Your task to perform on an android device: clear history in the chrome app Image 0: 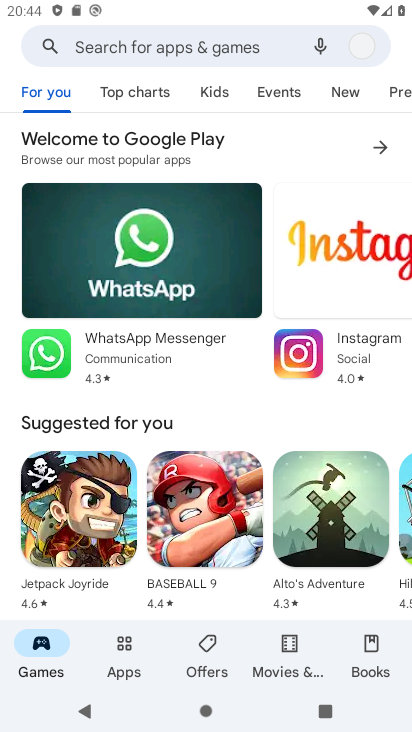
Step 0: press home button
Your task to perform on an android device: clear history in the chrome app Image 1: 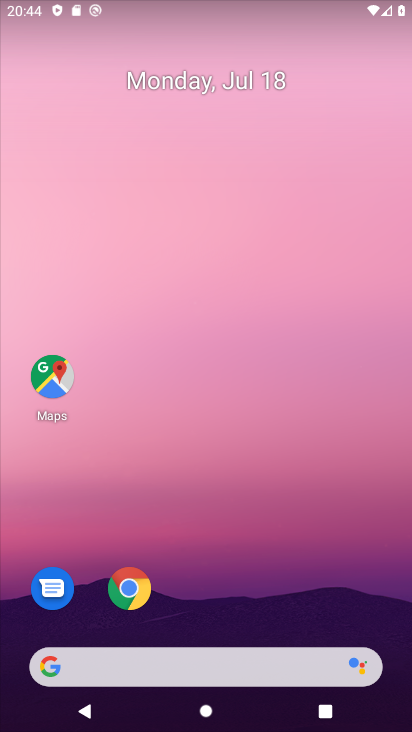
Step 1: click (122, 594)
Your task to perform on an android device: clear history in the chrome app Image 2: 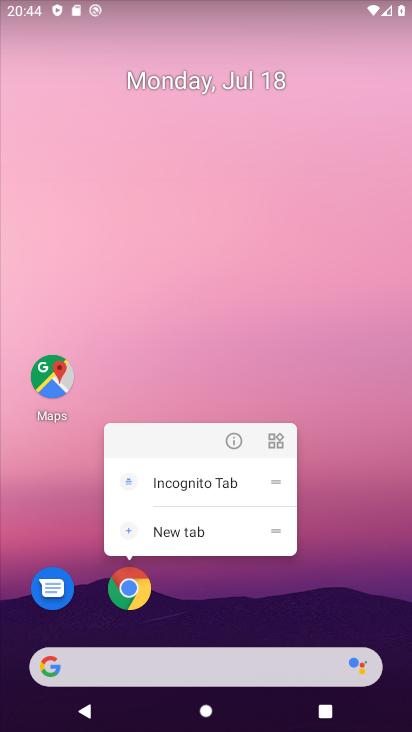
Step 2: click (138, 582)
Your task to perform on an android device: clear history in the chrome app Image 3: 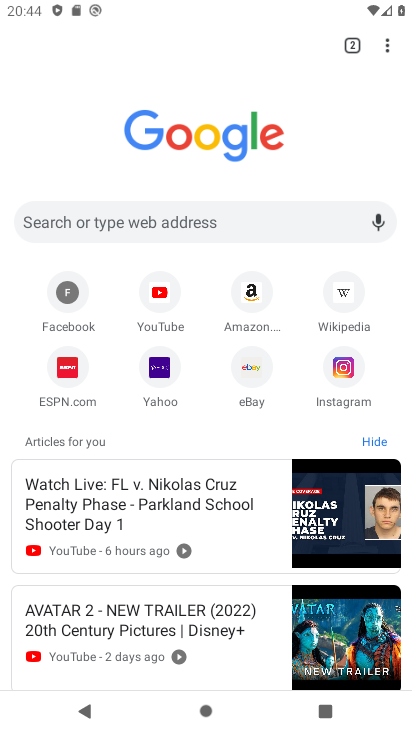
Step 3: drag from (386, 46) to (265, 259)
Your task to perform on an android device: clear history in the chrome app Image 4: 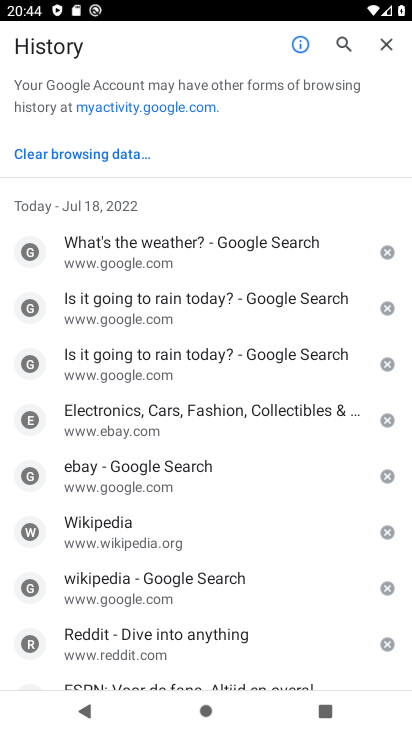
Step 4: click (95, 151)
Your task to perform on an android device: clear history in the chrome app Image 5: 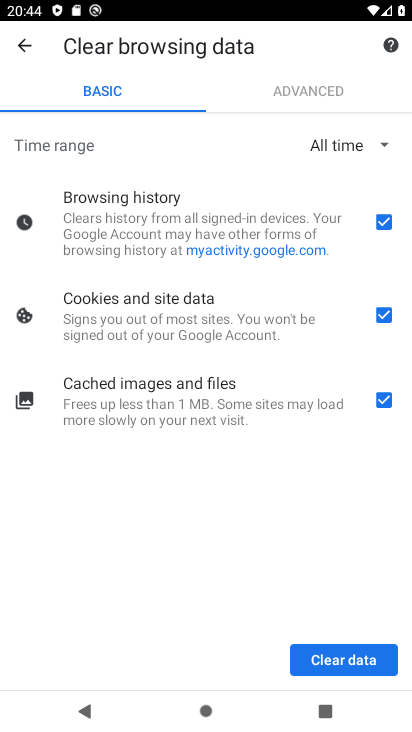
Step 5: click (337, 659)
Your task to perform on an android device: clear history in the chrome app Image 6: 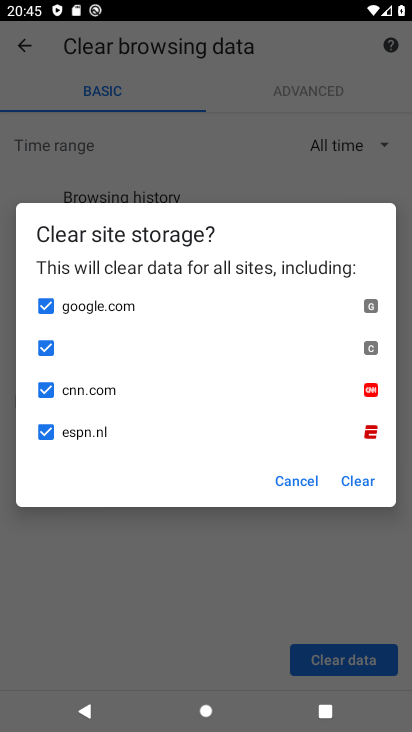
Step 6: click (353, 474)
Your task to perform on an android device: clear history in the chrome app Image 7: 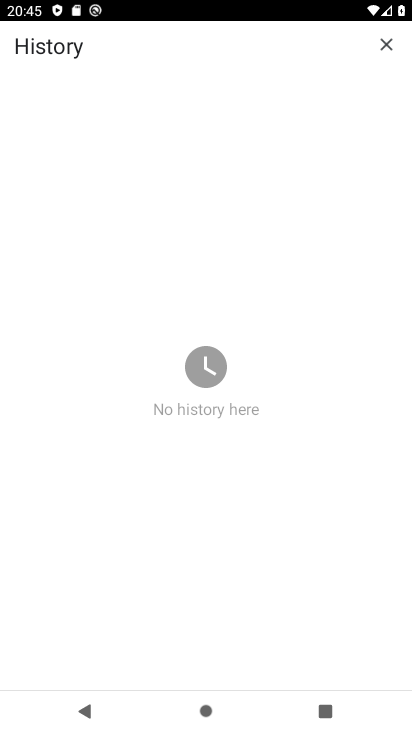
Step 7: task complete